Your task to perform on an android device: Clear the shopping cart on walmart.com. Search for acer nitro on walmart.com, select the first entry, add it to the cart, then select checkout. Image 0: 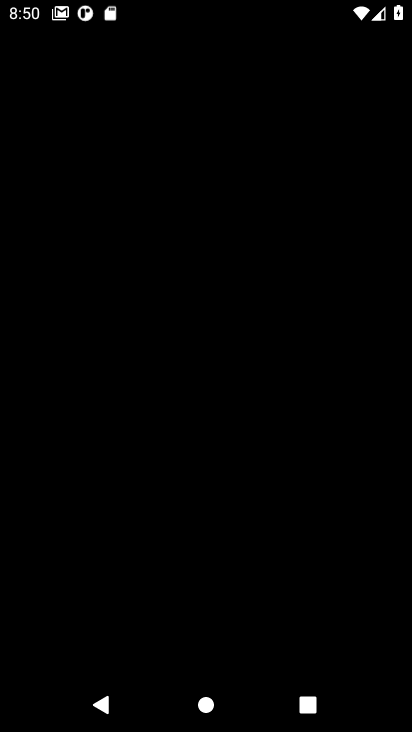
Step 0: press home button
Your task to perform on an android device: Clear the shopping cart on walmart.com. Search for acer nitro on walmart.com, select the first entry, add it to the cart, then select checkout. Image 1: 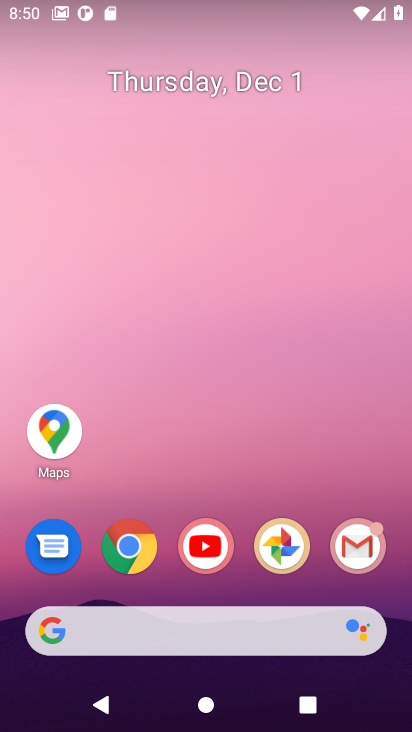
Step 1: click (130, 542)
Your task to perform on an android device: Clear the shopping cart on walmart.com. Search for acer nitro on walmart.com, select the first entry, add it to the cart, then select checkout. Image 2: 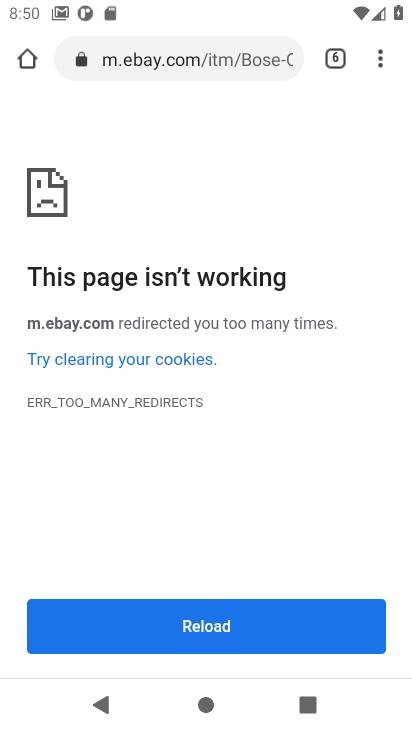
Step 2: click (188, 64)
Your task to perform on an android device: Clear the shopping cart on walmart.com. Search for acer nitro on walmart.com, select the first entry, add it to the cart, then select checkout. Image 3: 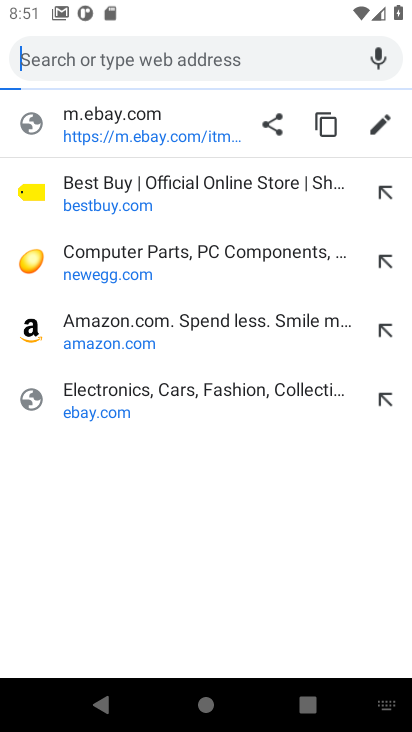
Step 3: type "walmart.com"
Your task to perform on an android device: Clear the shopping cart on walmart.com. Search for acer nitro on walmart.com, select the first entry, add it to the cart, then select checkout. Image 4: 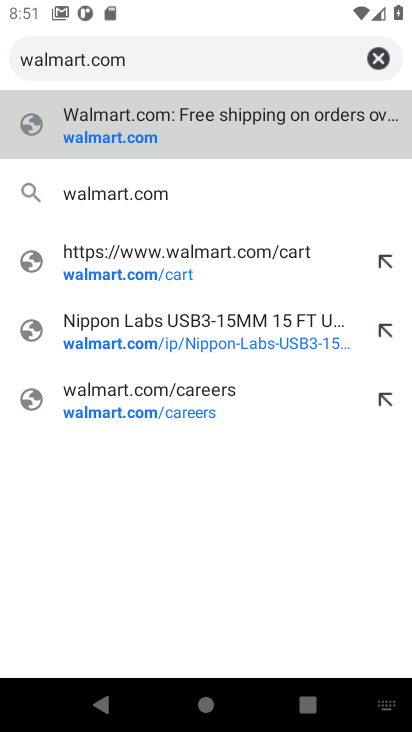
Step 4: click (135, 142)
Your task to perform on an android device: Clear the shopping cart on walmart.com. Search for acer nitro on walmart.com, select the first entry, add it to the cart, then select checkout. Image 5: 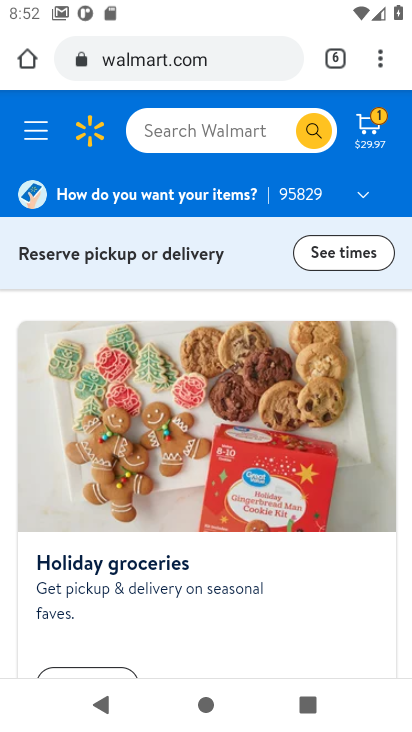
Step 5: click (366, 135)
Your task to perform on an android device: Clear the shopping cart on walmart.com. Search for acer nitro on walmart.com, select the first entry, add it to the cart, then select checkout. Image 6: 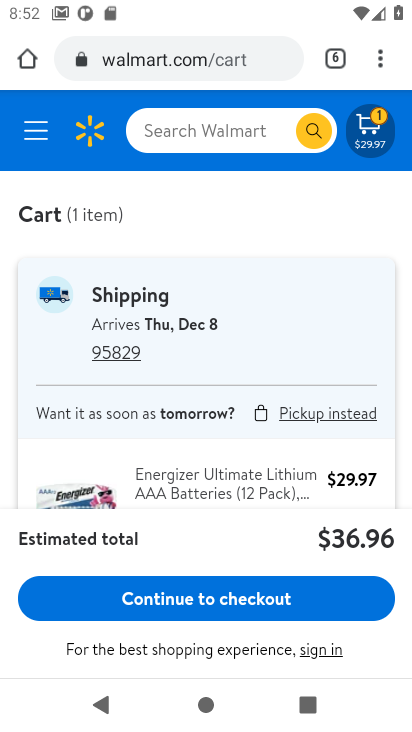
Step 6: drag from (277, 424) to (249, 161)
Your task to perform on an android device: Clear the shopping cart on walmart.com. Search for acer nitro on walmart.com, select the first entry, add it to the cart, then select checkout. Image 7: 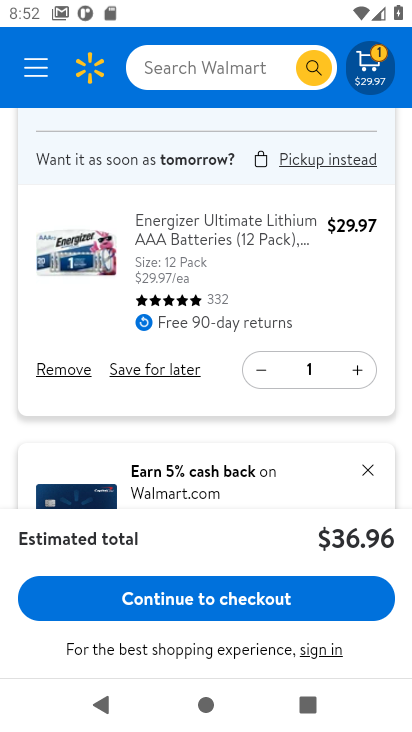
Step 7: click (70, 375)
Your task to perform on an android device: Clear the shopping cart on walmart.com. Search for acer nitro on walmart.com, select the first entry, add it to the cart, then select checkout. Image 8: 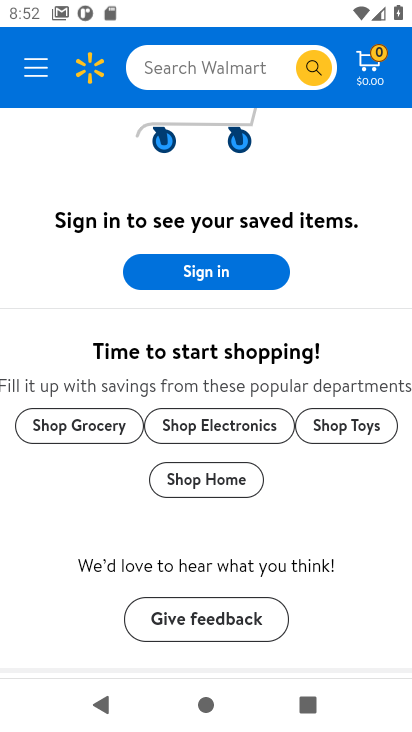
Step 8: click (218, 73)
Your task to perform on an android device: Clear the shopping cart on walmart.com. Search for acer nitro on walmart.com, select the first entry, add it to the cart, then select checkout. Image 9: 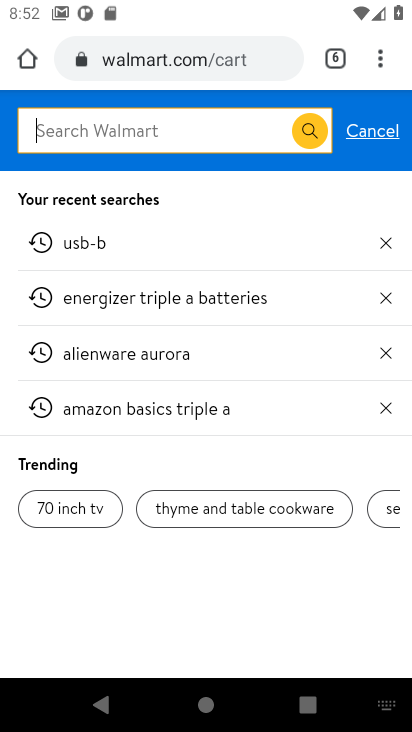
Step 9: type "acer nitro"
Your task to perform on an android device: Clear the shopping cart on walmart.com. Search for acer nitro on walmart.com, select the first entry, add it to the cart, then select checkout. Image 10: 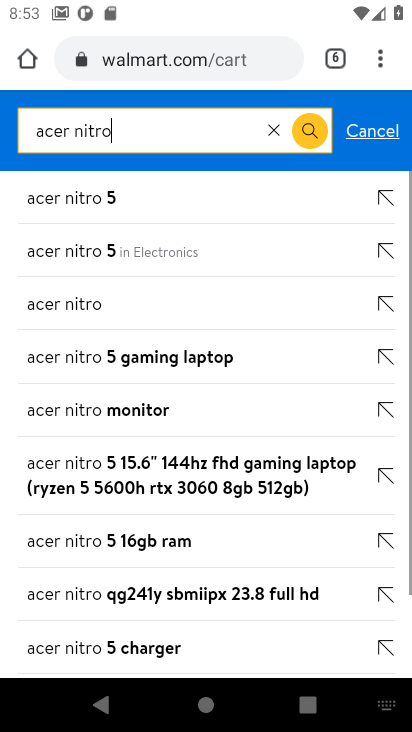
Step 10: click (43, 307)
Your task to perform on an android device: Clear the shopping cart on walmart.com. Search for acer nitro on walmart.com, select the first entry, add it to the cart, then select checkout. Image 11: 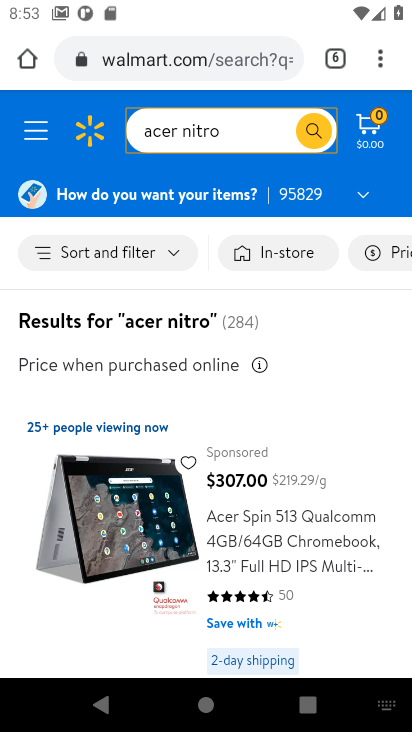
Step 11: task complete